Your task to perform on an android device: Check the news Image 0: 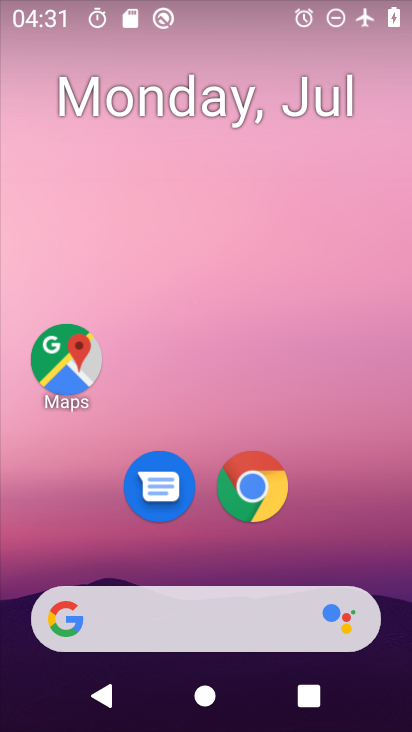
Step 0: click (217, 603)
Your task to perform on an android device: Check the news Image 1: 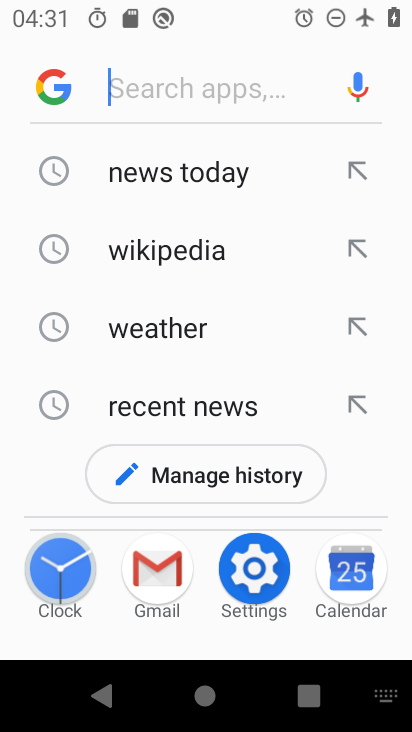
Step 1: click (181, 166)
Your task to perform on an android device: Check the news Image 2: 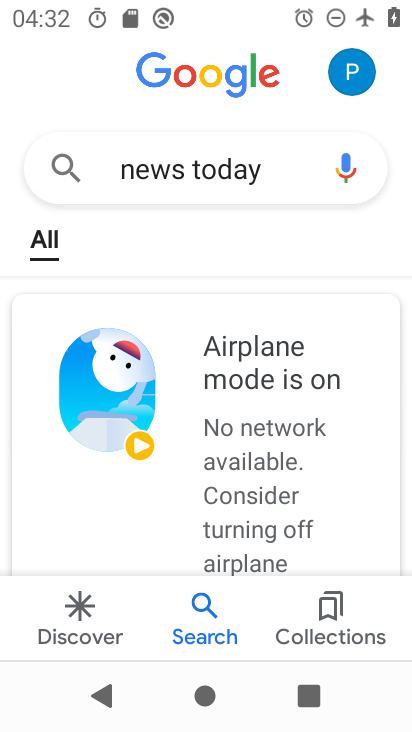
Step 2: drag from (353, 13) to (256, 671)
Your task to perform on an android device: Check the news Image 3: 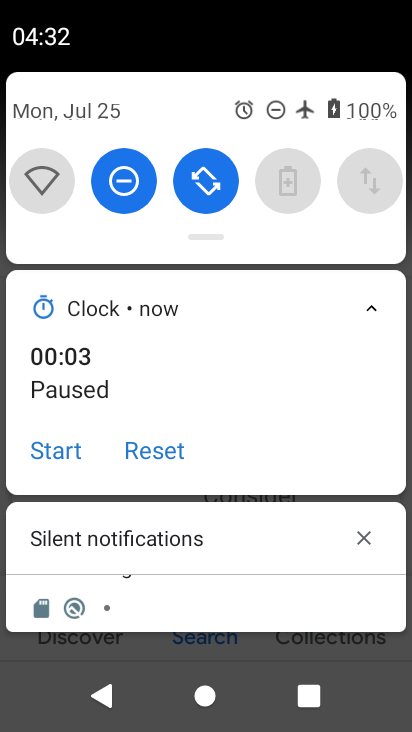
Step 3: drag from (204, 232) to (198, 701)
Your task to perform on an android device: Check the news Image 4: 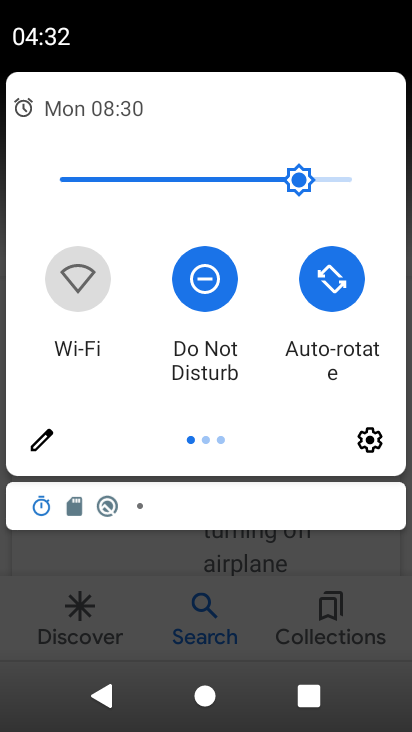
Step 4: drag from (352, 298) to (0, 370)
Your task to perform on an android device: Check the news Image 5: 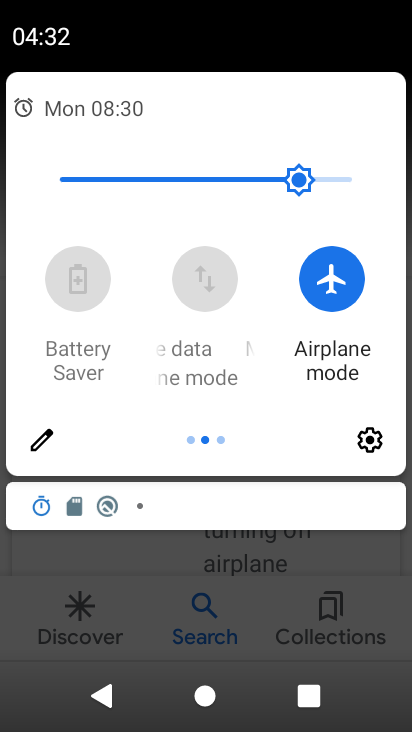
Step 5: click (319, 280)
Your task to perform on an android device: Check the news Image 6: 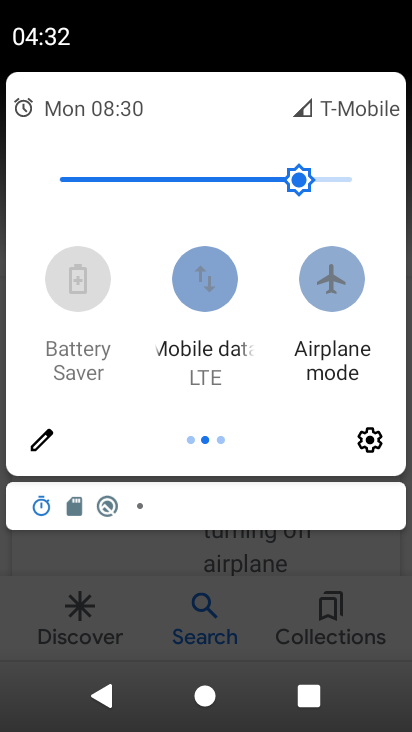
Step 6: click (110, 582)
Your task to perform on an android device: Check the news Image 7: 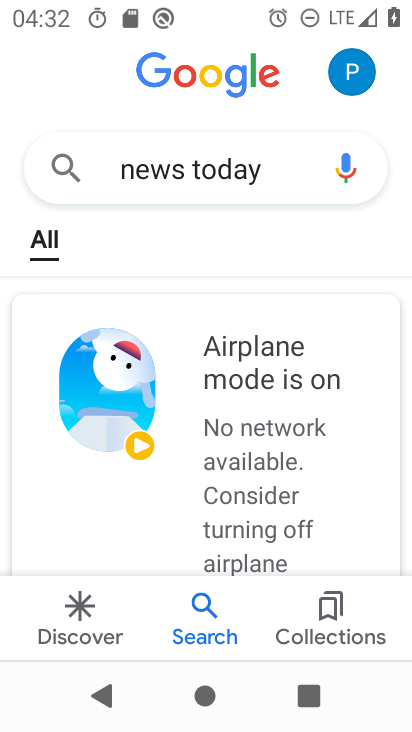
Step 7: drag from (206, 525) to (263, 173)
Your task to perform on an android device: Check the news Image 8: 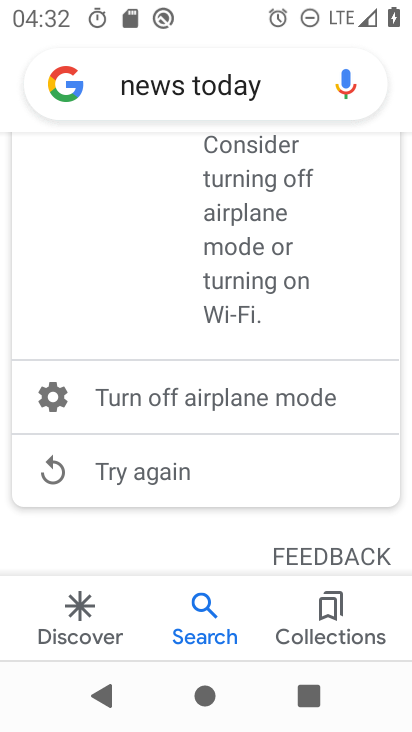
Step 8: click (91, 476)
Your task to perform on an android device: Check the news Image 9: 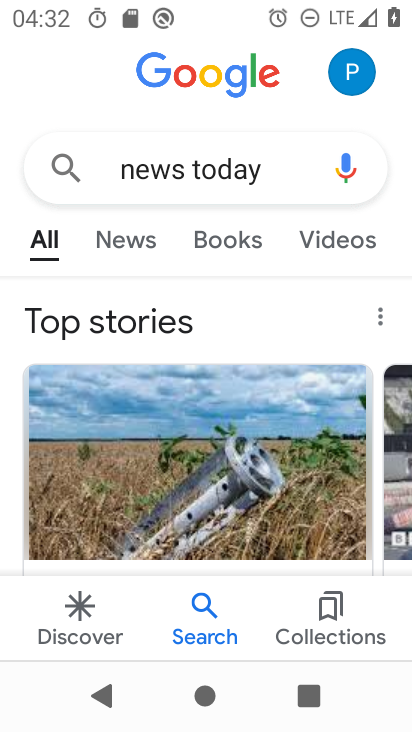
Step 9: task complete